Your task to perform on an android device: What is the news today? Image 0: 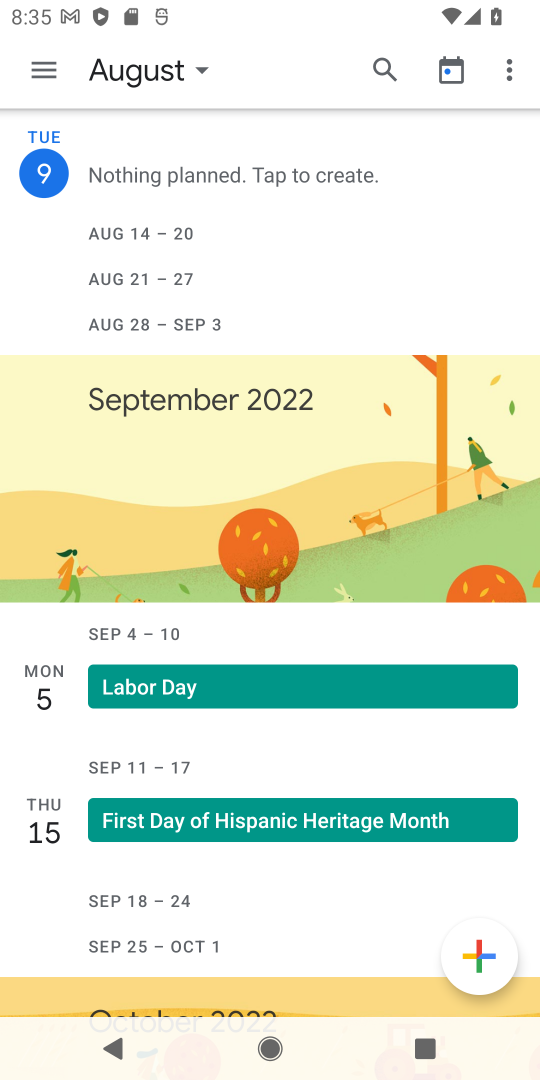
Step 0: press back button
Your task to perform on an android device: What is the news today? Image 1: 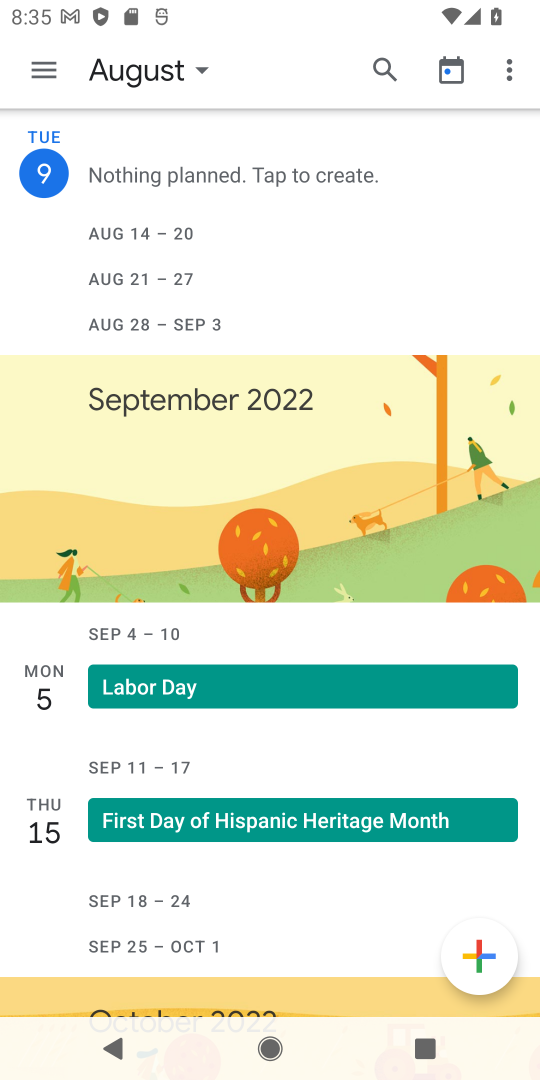
Step 1: press back button
Your task to perform on an android device: What is the news today? Image 2: 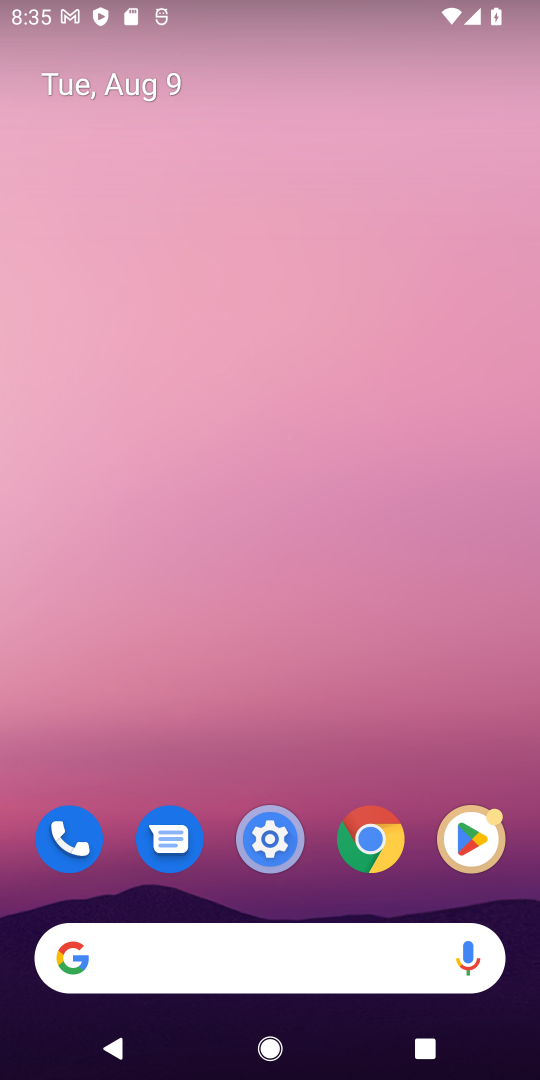
Step 2: press back button
Your task to perform on an android device: What is the news today? Image 3: 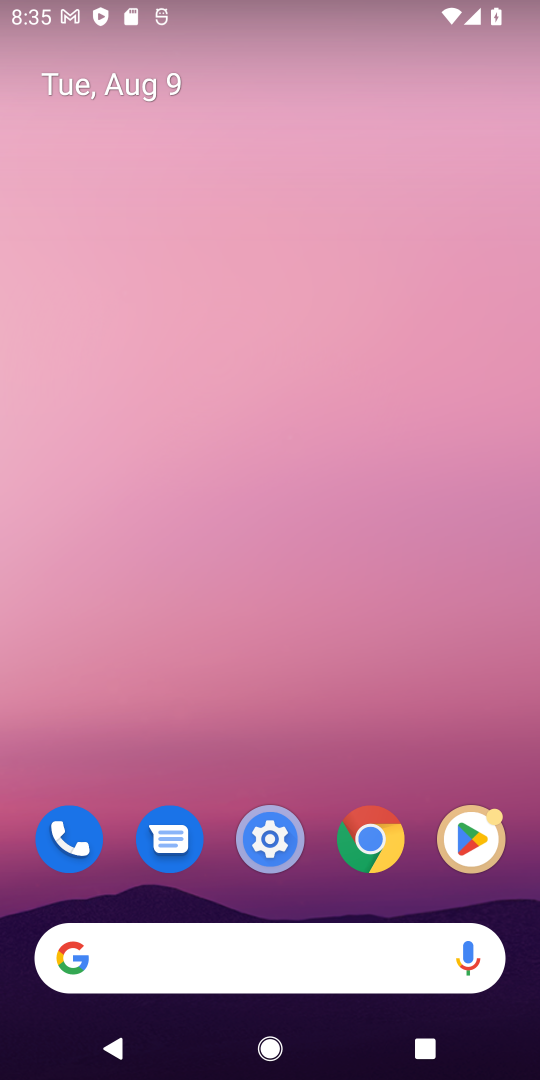
Step 3: drag from (268, 901) to (202, 280)
Your task to perform on an android device: What is the news today? Image 4: 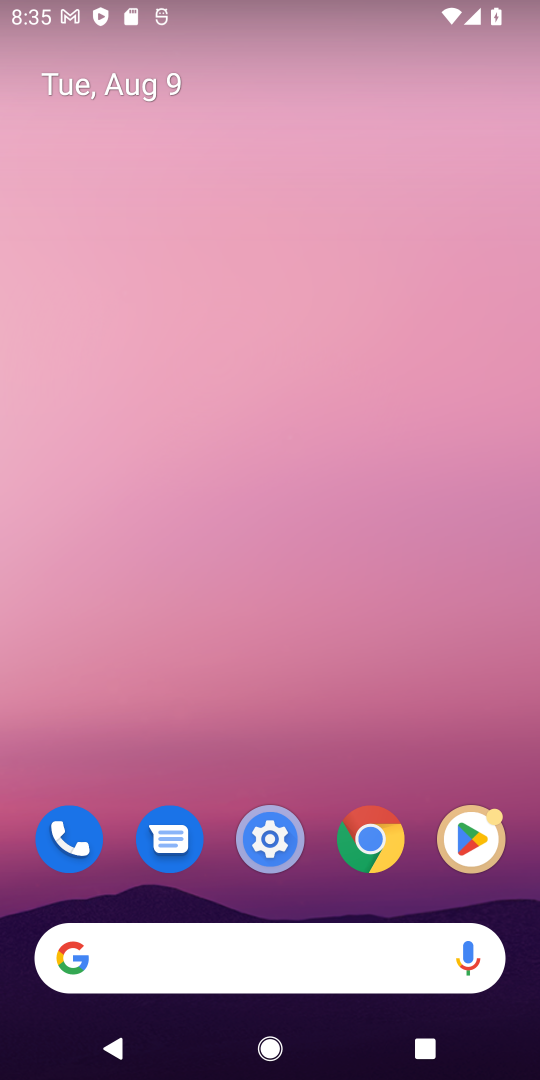
Step 4: drag from (205, 418) to (203, 211)
Your task to perform on an android device: What is the news today? Image 5: 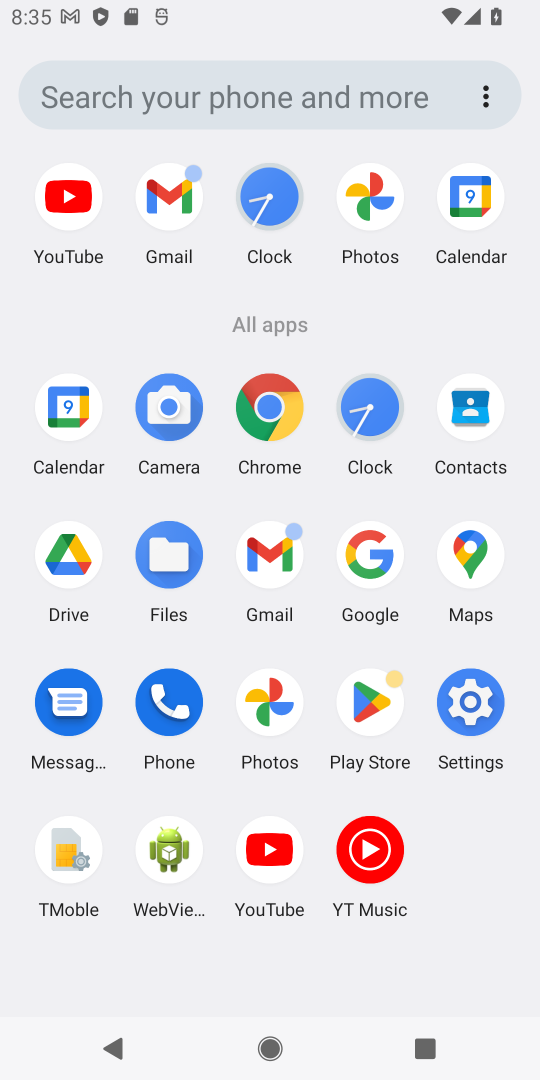
Step 5: drag from (211, 740) to (187, 206)
Your task to perform on an android device: What is the news today? Image 6: 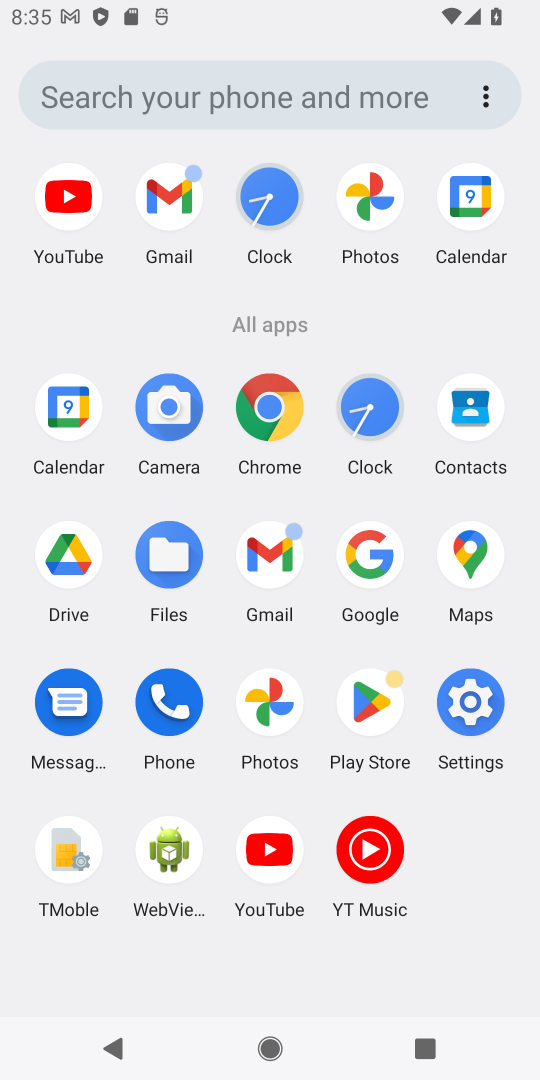
Step 6: click (264, 405)
Your task to perform on an android device: What is the news today? Image 7: 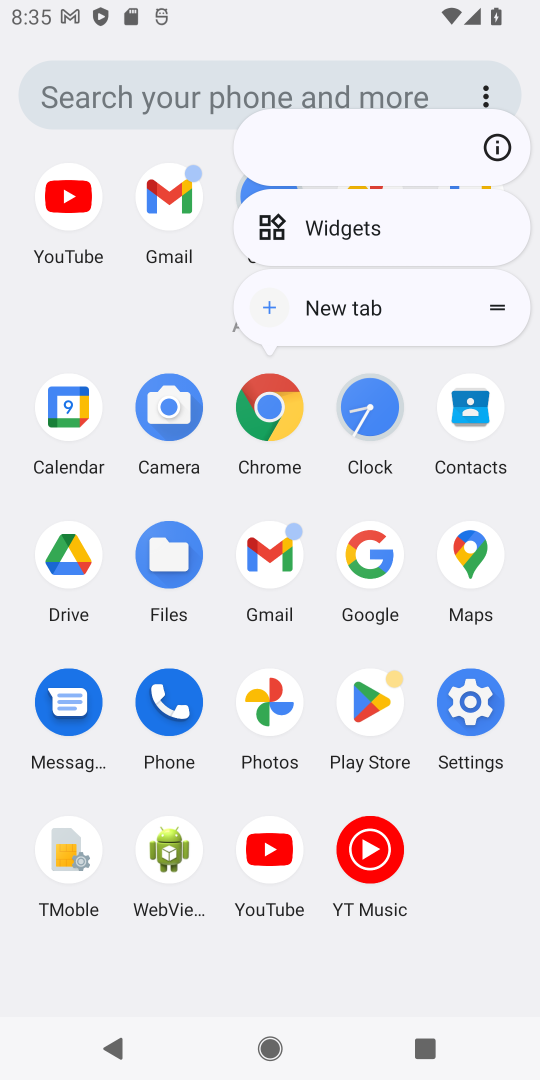
Step 7: click (275, 412)
Your task to perform on an android device: What is the news today? Image 8: 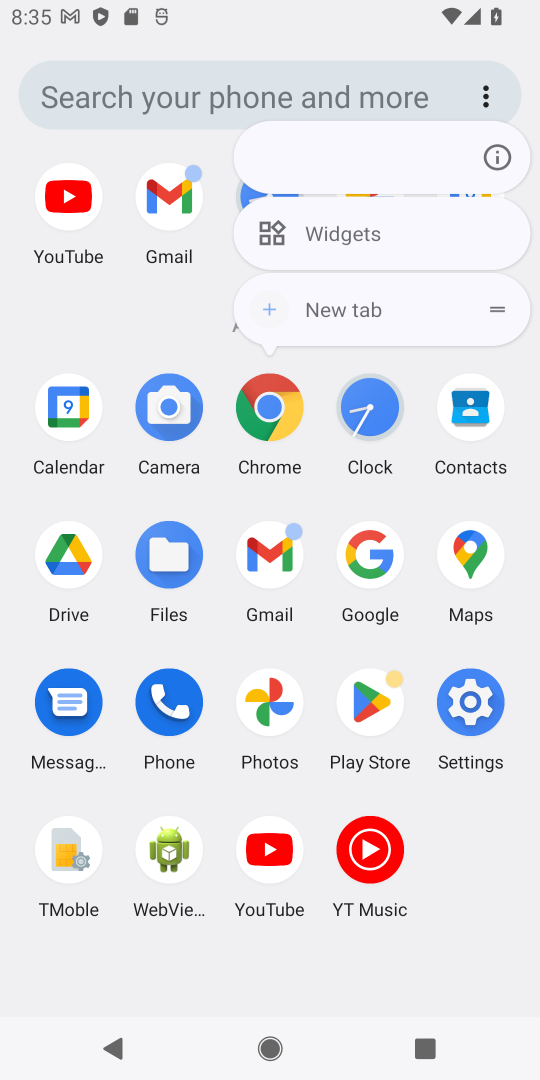
Step 8: click (276, 415)
Your task to perform on an android device: What is the news today? Image 9: 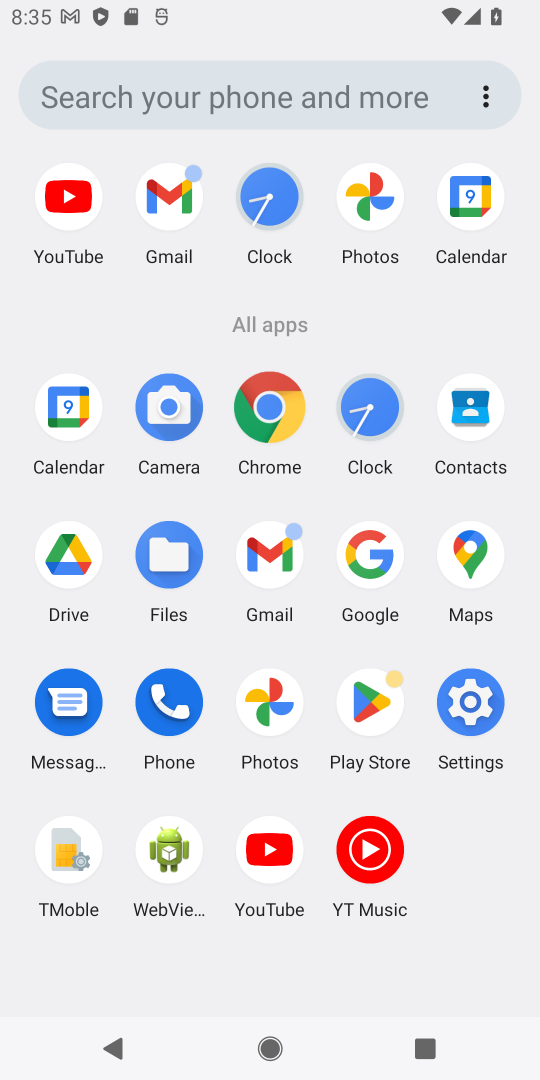
Step 9: click (279, 418)
Your task to perform on an android device: What is the news today? Image 10: 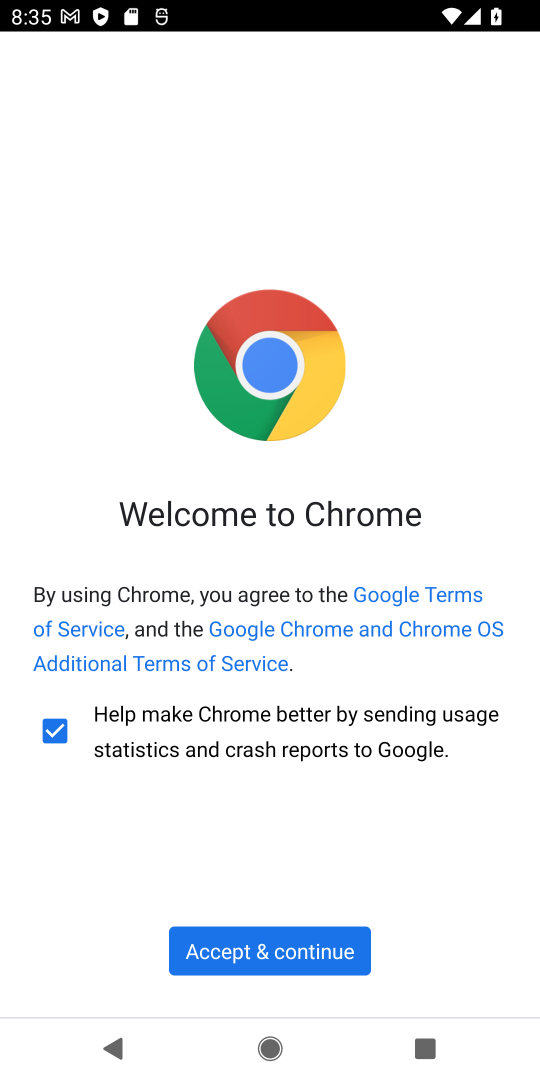
Step 10: click (285, 966)
Your task to perform on an android device: What is the news today? Image 11: 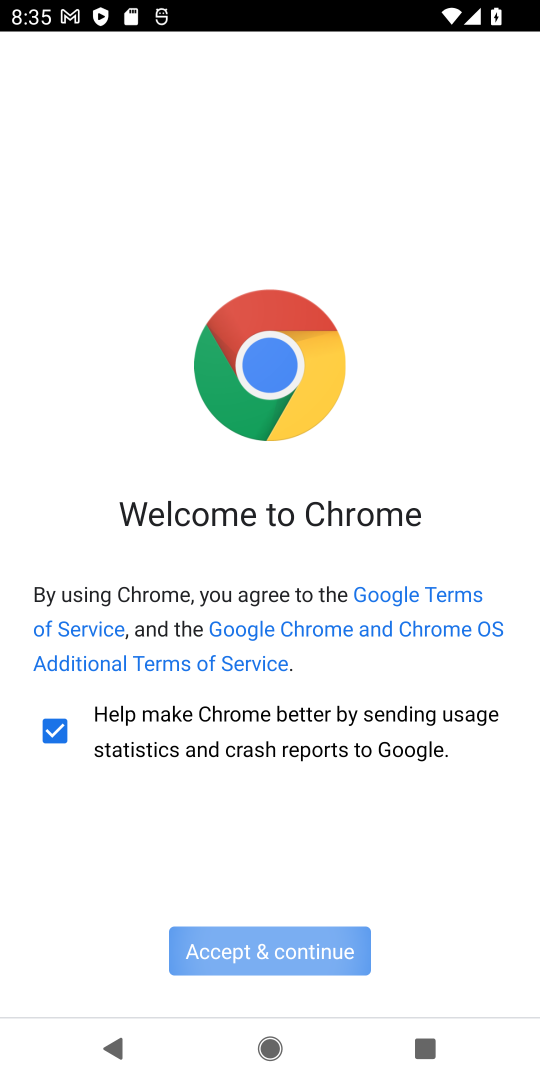
Step 11: click (283, 956)
Your task to perform on an android device: What is the news today? Image 12: 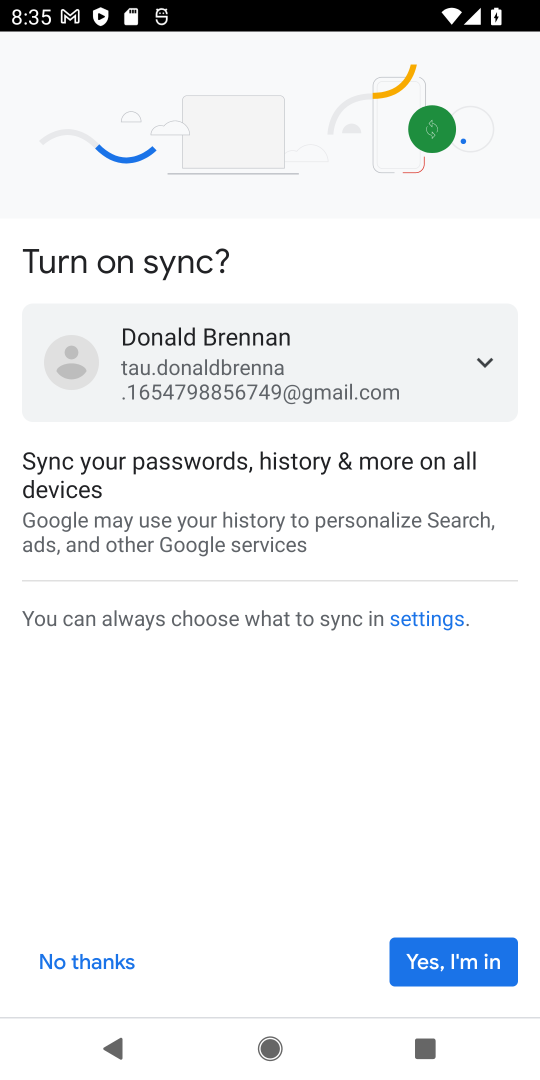
Step 12: click (118, 959)
Your task to perform on an android device: What is the news today? Image 13: 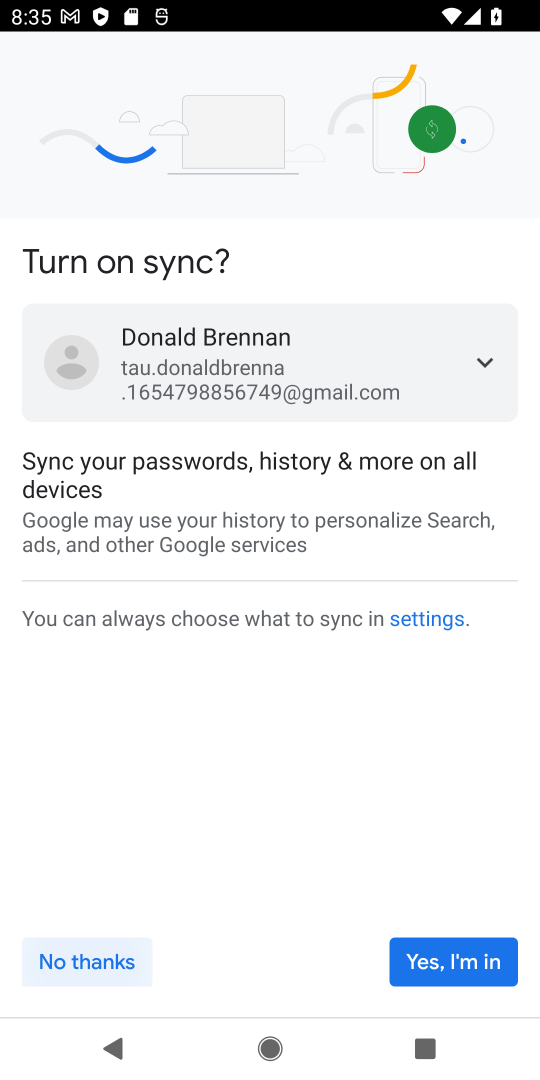
Step 13: click (85, 964)
Your task to perform on an android device: What is the news today? Image 14: 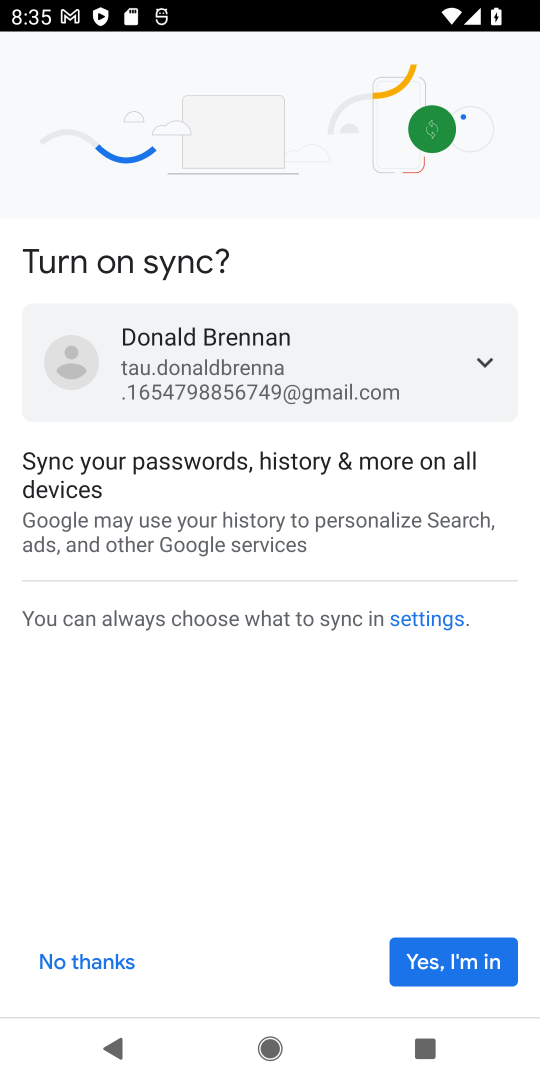
Step 14: click (85, 952)
Your task to perform on an android device: What is the news today? Image 15: 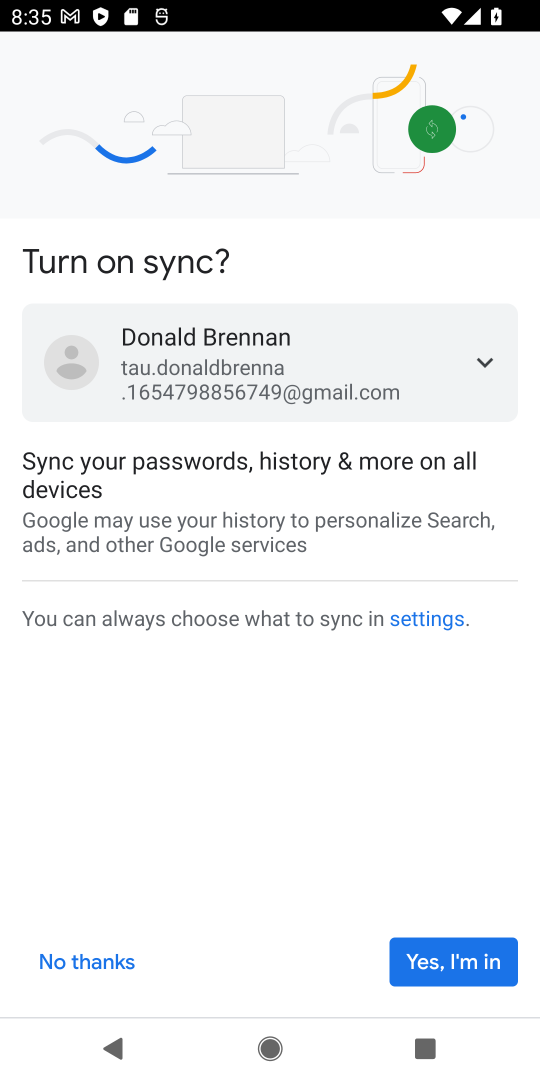
Step 15: click (85, 953)
Your task to perform on an android device: What is the news today? Image 16: 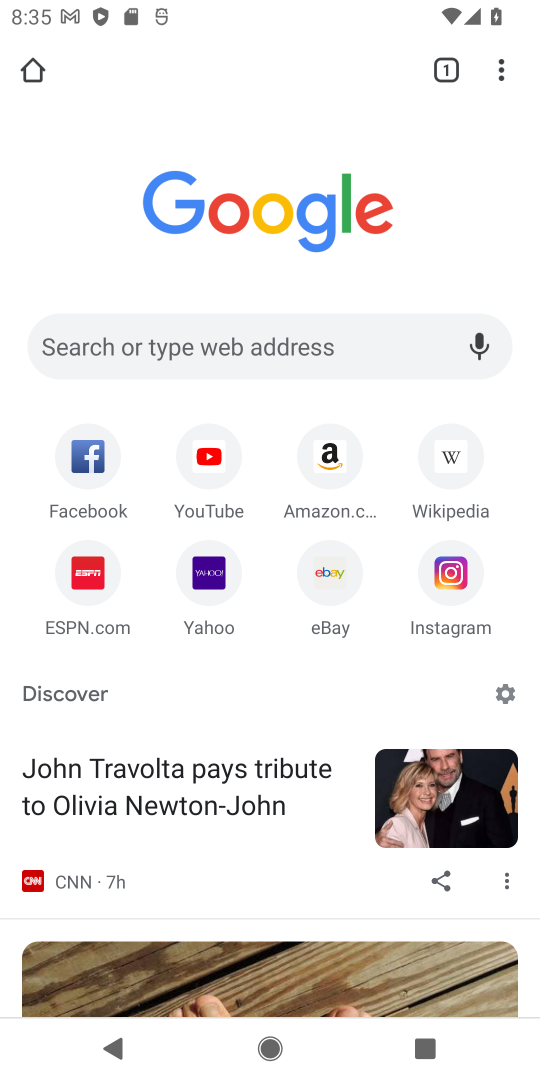
Step 16: task complete